Your task to perform on an android device: move a message to another label in the gmail app Image 0: 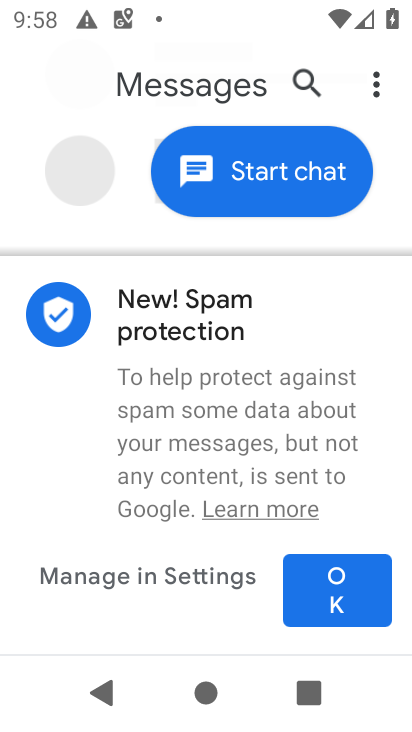
Step 0: press home button
Your task to perform on an android device: move a message to another label in the gmail app Image 1: 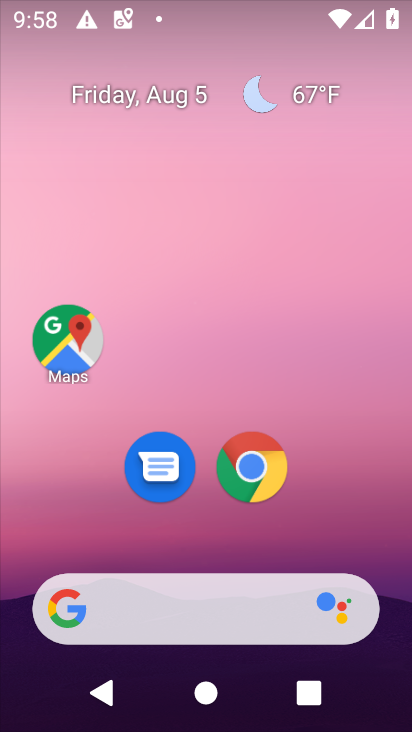
Step 1: drag from (164, 538) to (164, 198)
Your task to perform on an android device: move a message to another label in the gmail app Image 2: 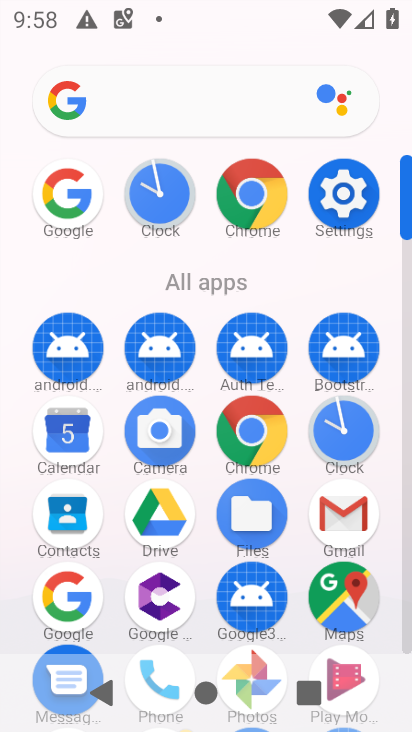
Step 2: click (358, 506)
Your task to perform on an android device: move a message to another label in the gmail app Image 3: 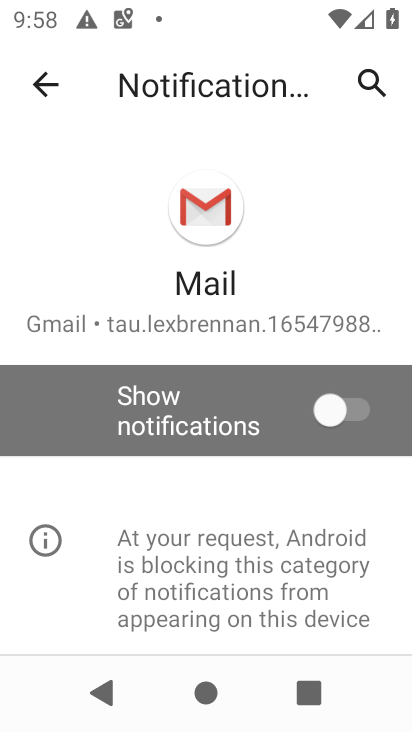
Step 3: click (39, 82)
Your task to perform on an android device: move a message to another label in the gmail app Image 4: 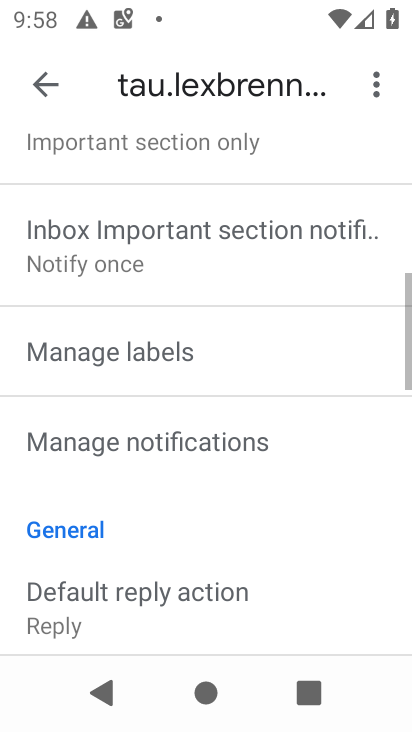
Step 4: click (39, 82)
Your task to perform on an android device: move a message to another label in the gmail app Image 5: 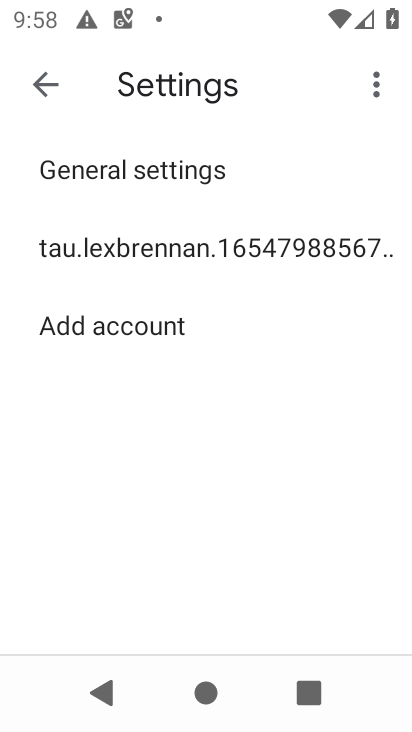
Step 5: click (39, 82)
Your task to perform on an android device: move a message to another label in the gmail app Image 6: 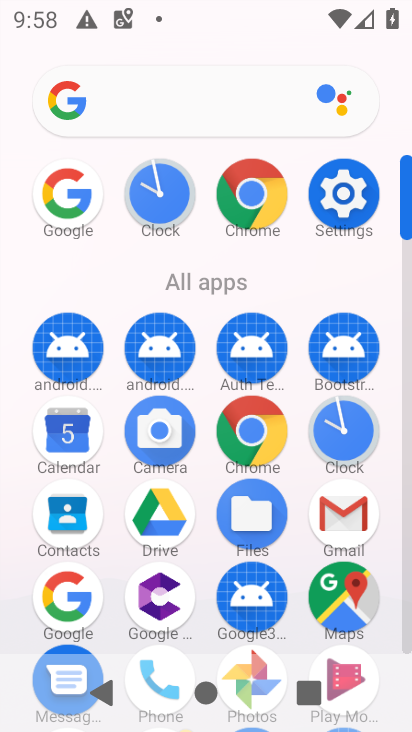
Step 6: click (349, 515)
Your task to perform on an android device: move a message to another label in the gmail app Image 7: 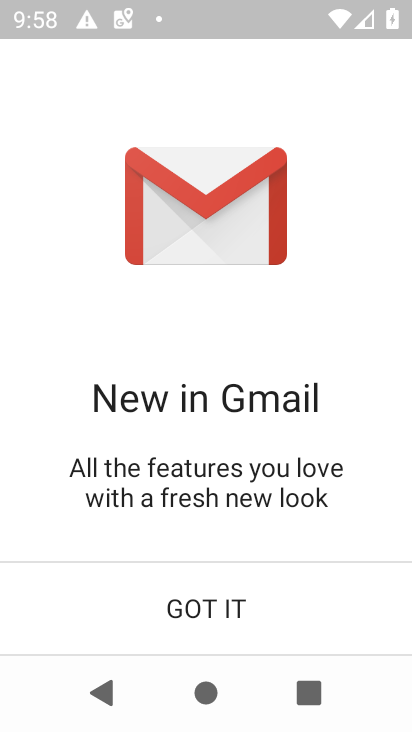
Step 7: click (245, 605)
Your task to perform on an android device: move a message to another label in the gmail app Image 8: 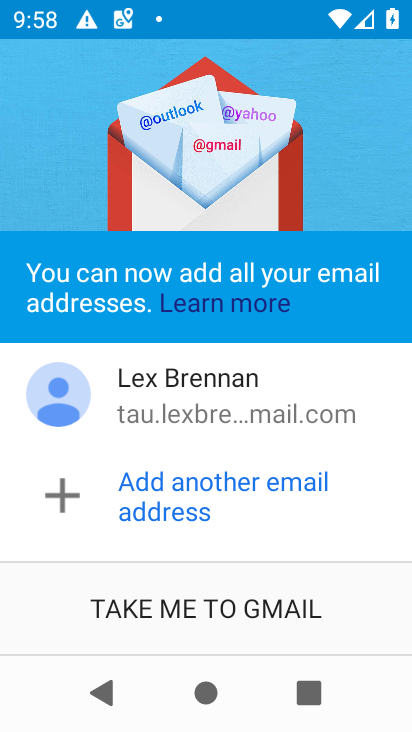
Step 8: click (245, 605)
Your task to perform on an android device: move a message to another label in the gmail app Image 9: 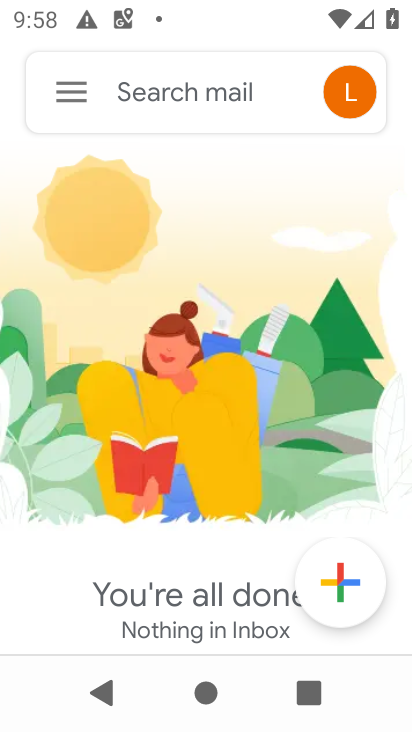
Step 9: task complete